Your task to perform on an android device: show emergency info Image 0: 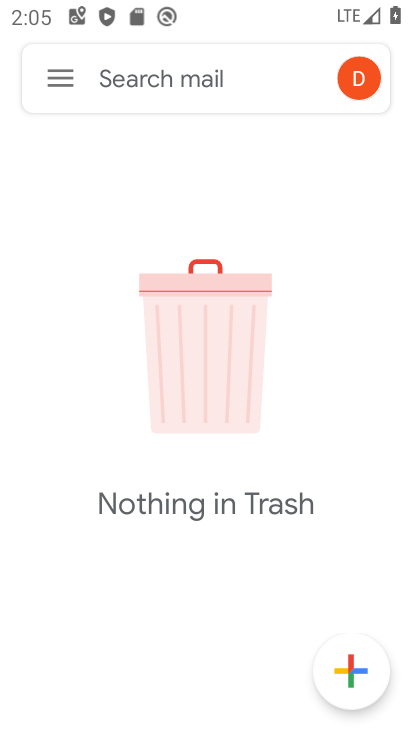
Step 0: press home button
Your task to perform on an android device: show emergency info Image 1: 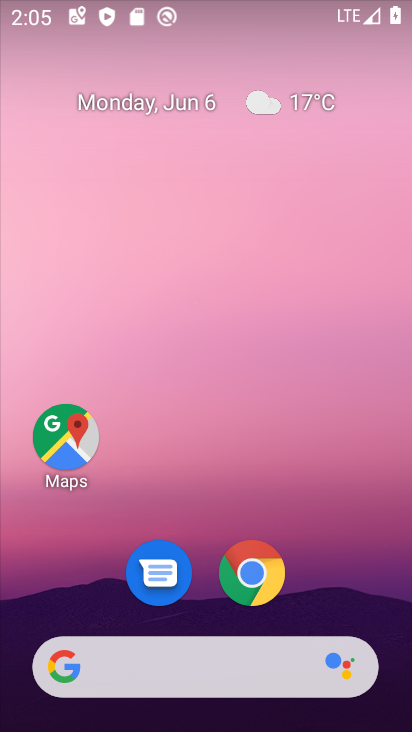
Step 1: drag from (374, 557) to (366, 164)
Your task to perform on an android device: show emergency info Image 2: 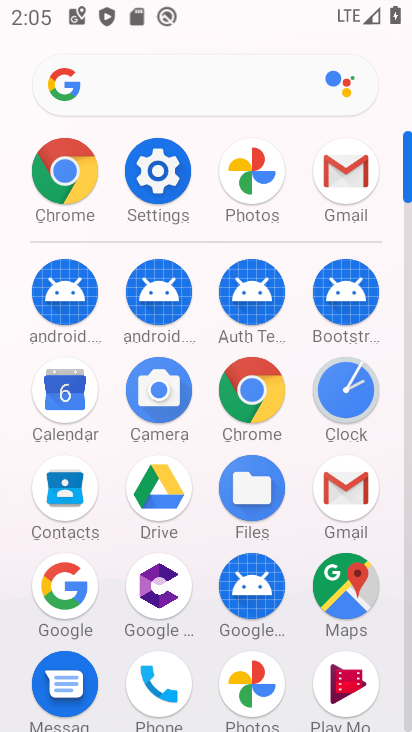
Step 2: click (166, 186)
Your task to perform on an android device: show emergency info Image 3: 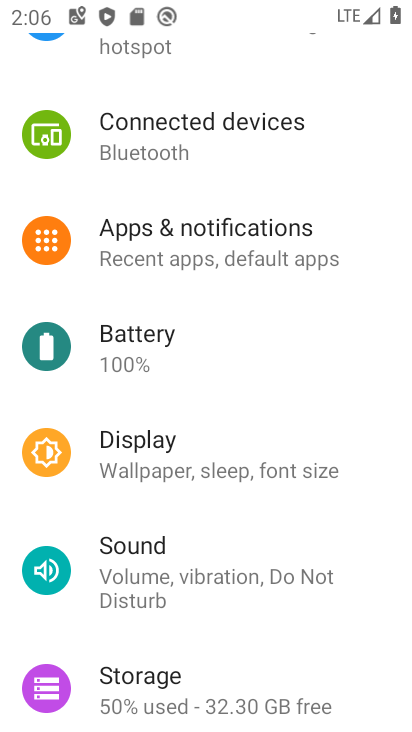
Step 3: drag from (358, 219) to (362, 312)
Your task to perform on an android device: show emergency info Image 4: 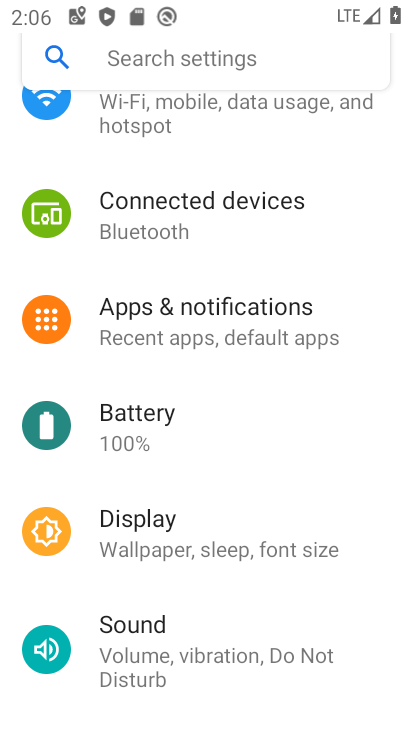
Step 4: drag from (364, 181) to (364, 300)
Your task to perform on an android device: show emergency info Image 5: 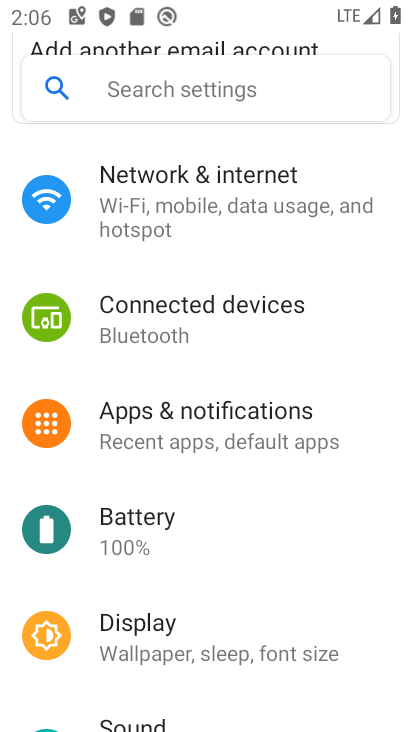
Step 5: drag from (373, 183) to (372, 333)
Your task to perform on an android device: show emergency info Image 6: 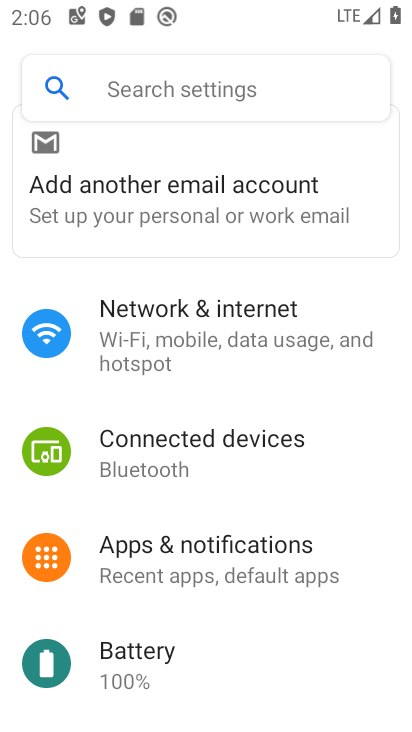
Step 6: drag from (375, 446) to (376, 240)
Your task to perform on an android device: show emergency info Image 7: 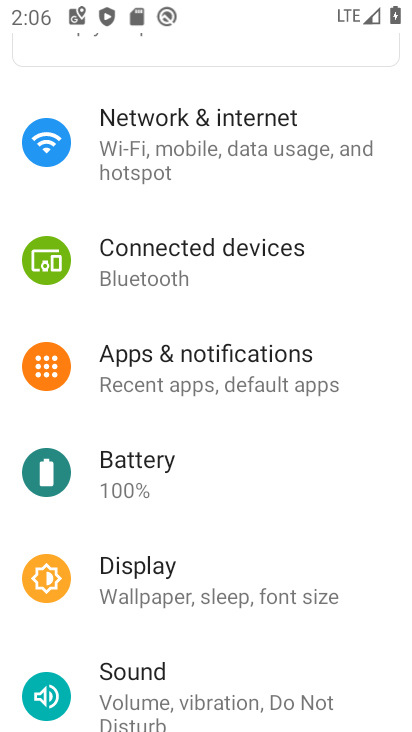
Step 7: drag from (369, 465) to (376, 342)
Your task to perform on an android device: show emergency info Image 8: 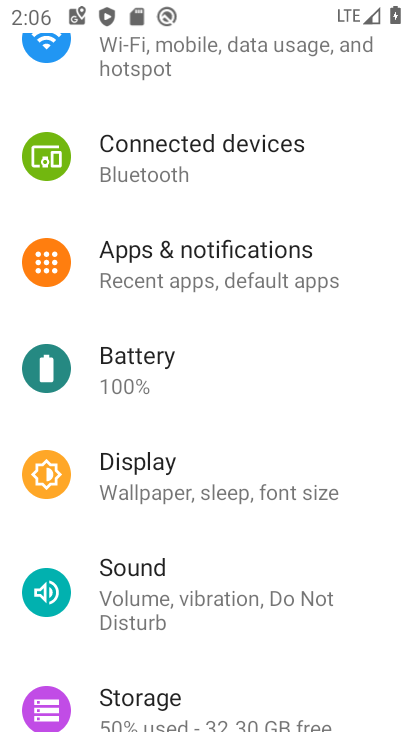
Step 8: drag from (350, 516) to (343, 235)
Your task to perform on an android device: show emergency info Image 9: 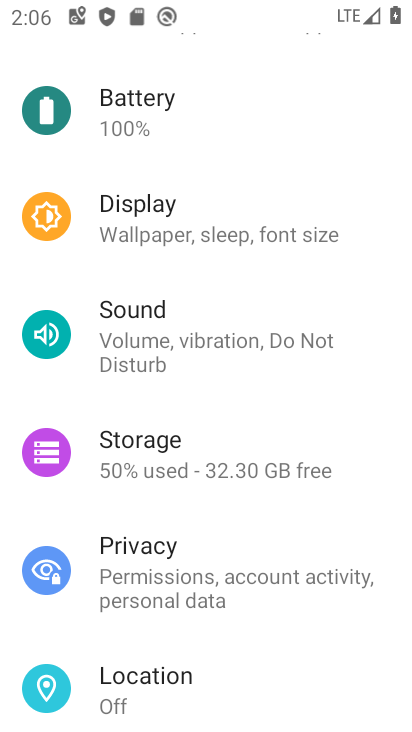
Step 9: drag from (353, 483) to (353, 341)
Your task to perform on an android device: show emergency info Image 10: 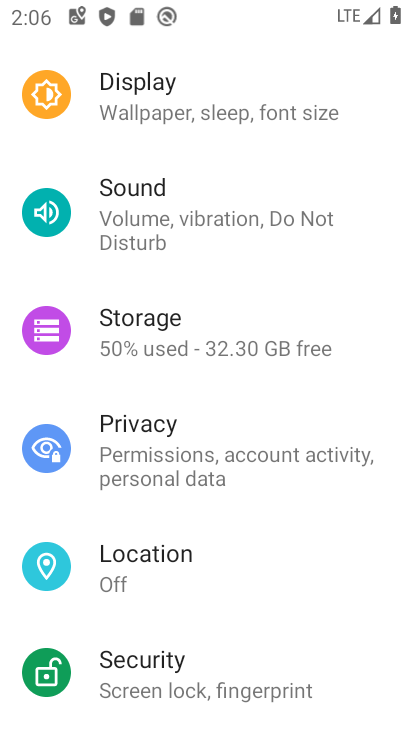
Step 10: drag from (331, 513) to (344, 346)
Your task to perform on an android device: show emergency info Image 11: 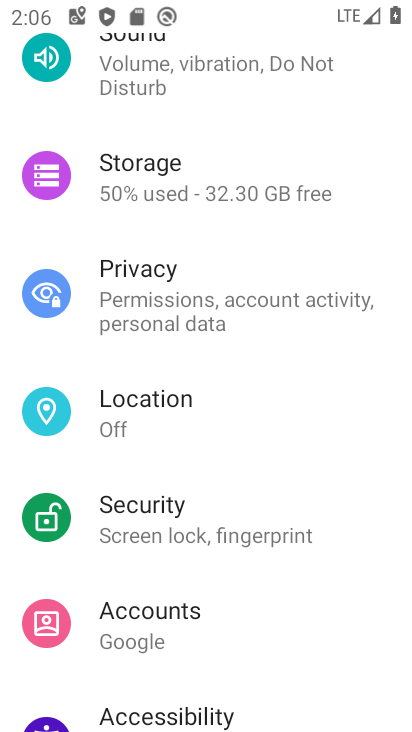
Step 11: drag from (354, 542) to (355, 356)
Your task to perform on an android device: show emergency info Image 12: 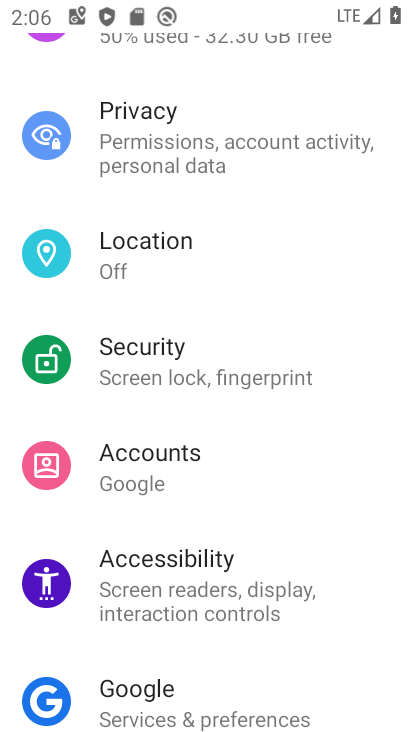
Step 12: drag from (354, 563) to (354, 409)
Your task to perform on an android device: show emergency info Image 13: 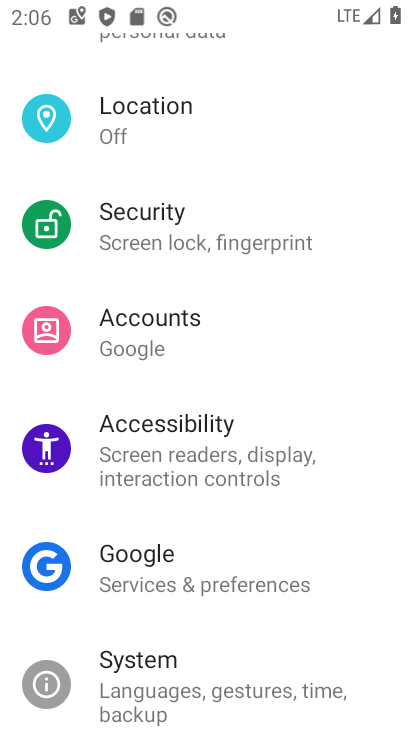
Step 13: drag from (353, 601) to (361, 374)
Your task to perform on an android device: show emergency info Image 14: 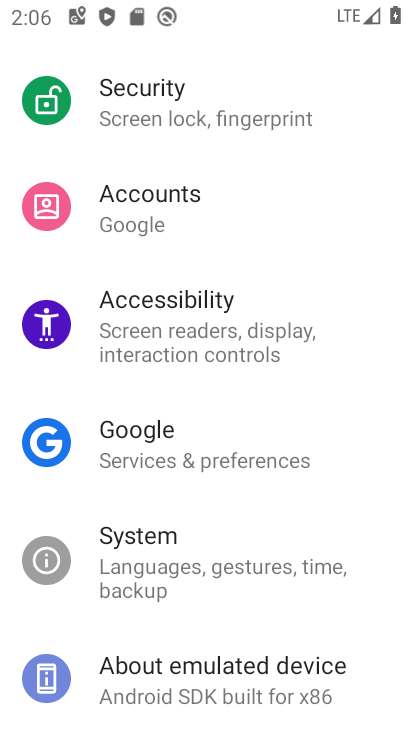
Step 14: click (305, 673)
Your task to perform on an android device: show emergency info Image 15: 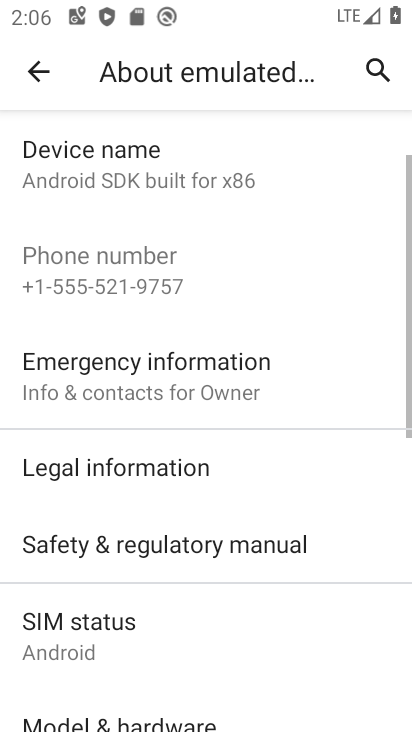
Step 15: click (257, 378)
Your task to perform on an android device: show emergency info Image 16: 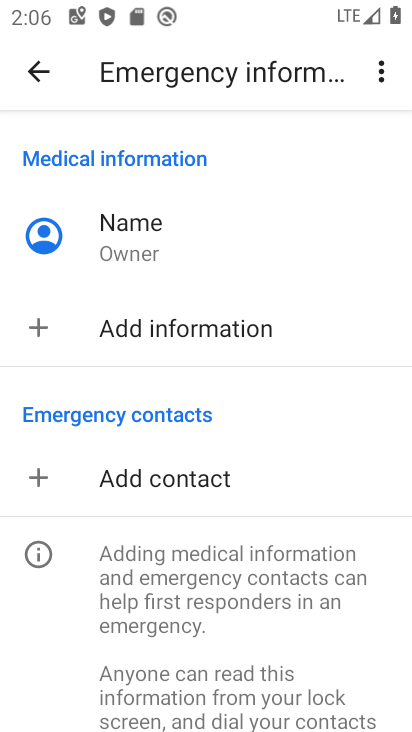
Step 16: task complete